Your task to perform on an android device: Open Youtube and go to the subscriptions tab Image 0: 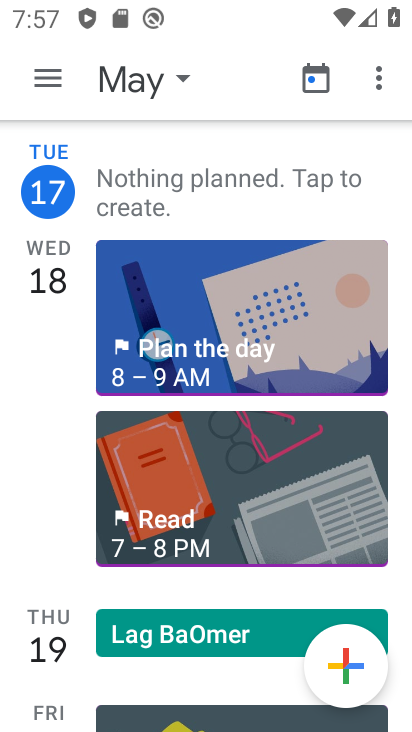
Step 0: press home button
Your task to perform on an android device: Open Youtube and go to the subscriptions tab Image 1: 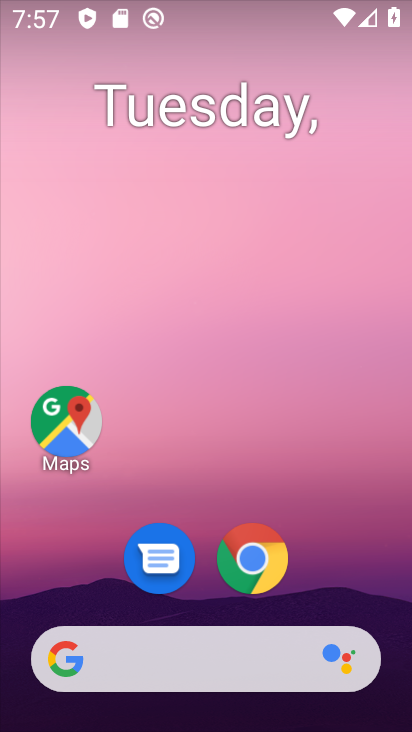
Step 1: drag from (167, 609) to (170, 26)
Your task to perform on an android device: Open Youtube and go to the subscriptions tab Image 2: 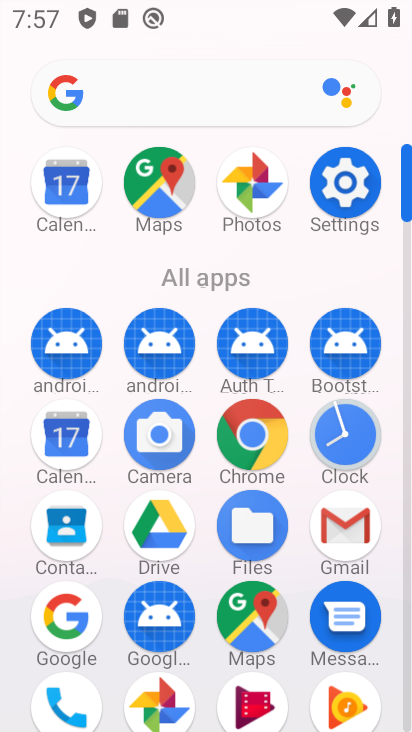
Step 2: drag from (204, 591) to (150, 88)
Your task to perform on an android device: Open Youtube and go to the subscriptions tab Image 3: 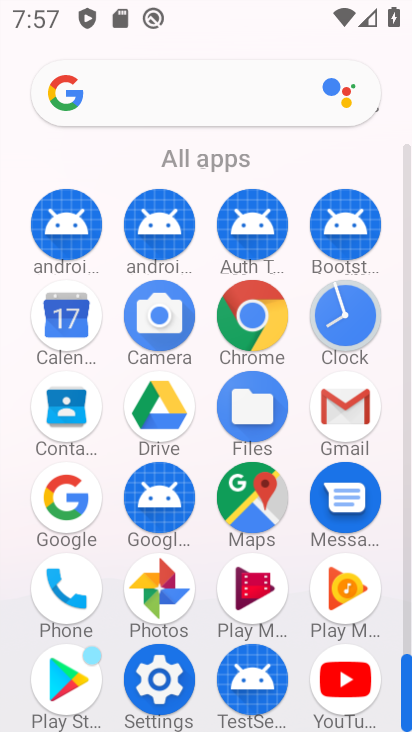
Step 3: click (345, 685)
Your task to perform on an android device: Open Youtube and go to the subscriptions tab Image 4: 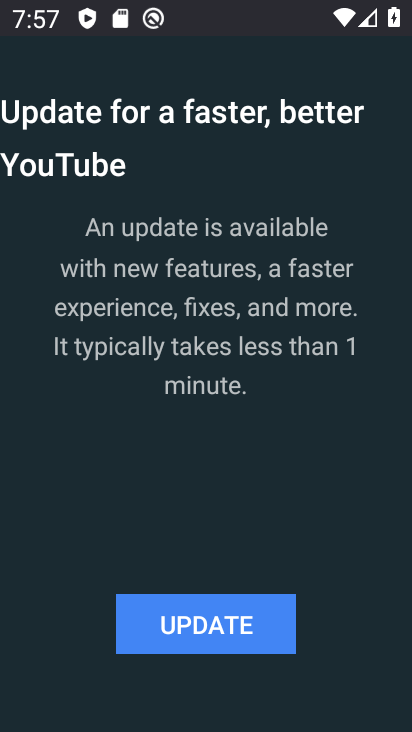
Step 4: click (197, 619)
Your task to perform on an android device: Open Youtube and go to the subscriptions tab Image 5: 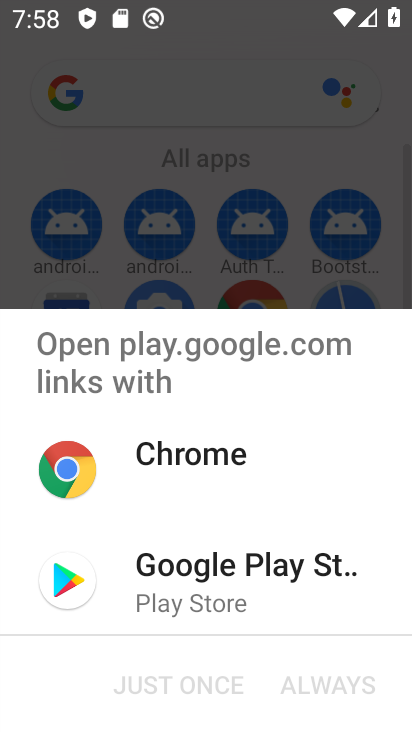
Step 5: click (182, 577)
Your task to perform on an android device: Open Youtube and go to the subscriptions tab Image 6: 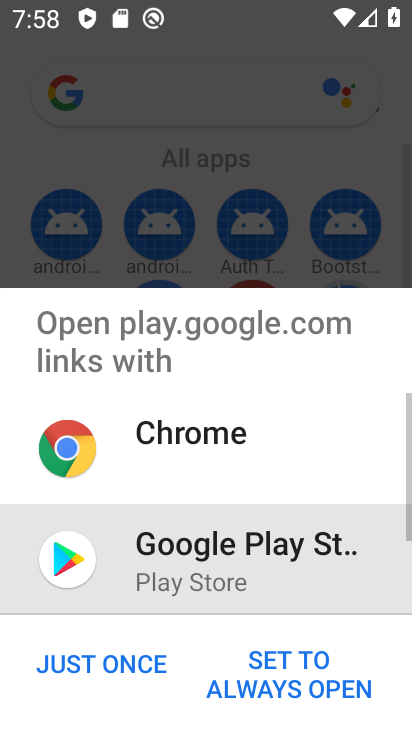
Step 6: click (86, 657)
Your task to perform on an android device: Open Youtube and go to the subscriptions tab Image 7: 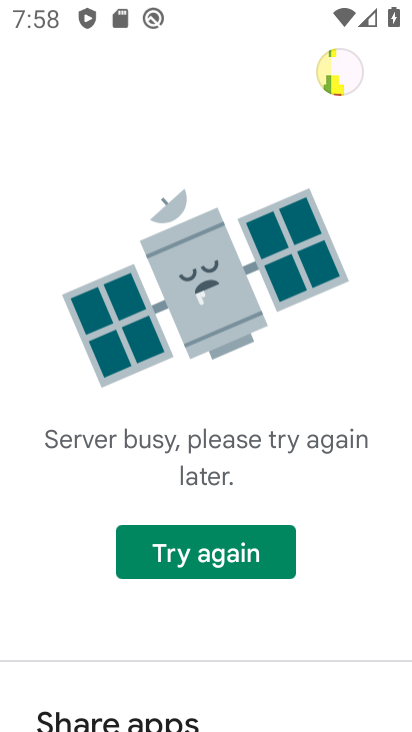
Step 7: task complete